Your task to perform on an android device: Go to accessibility settings Image 0: 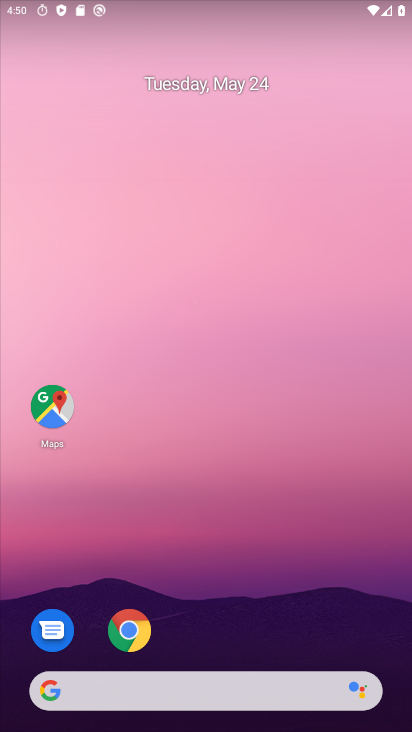
Step 0: click (260, 16)
Your task to perform on an android device: Go to accessibility settings Image 1: 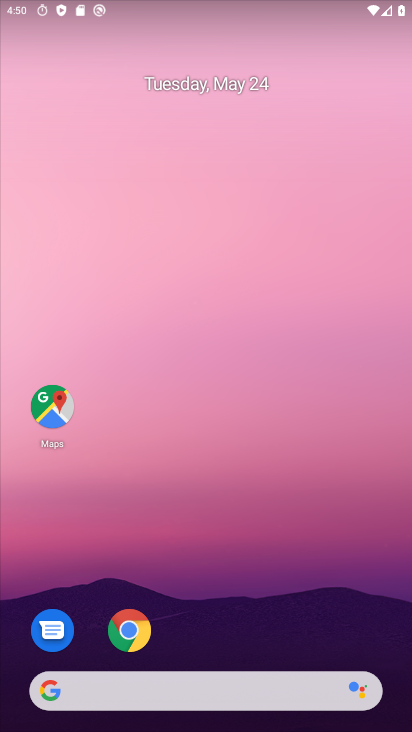
Step 1: drag from (177, 616) to (241, 0)
Your task to perform on an android device: Go to accessibility settings Image 2: 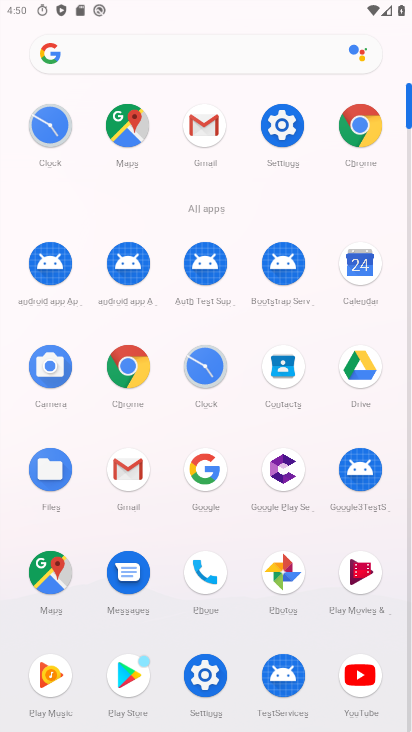
Step 2: click (275, 140)
Your task to perform on an android device: Go to accessibility settings Image 3: 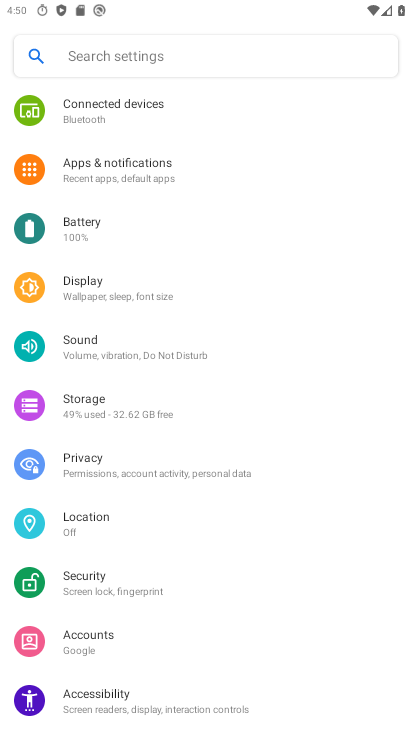
Step 3: click (81, 699)
Your task to perform on an android device: Go to accessibility settings Image 4: 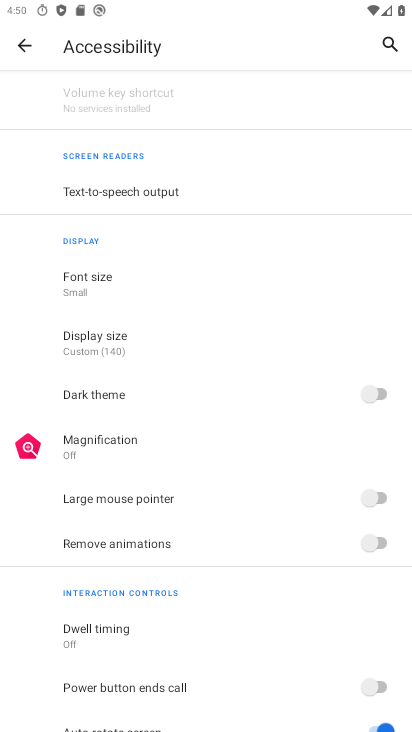
Step 4: task complete